Your task to perform on an android device: turn on wifi Image 0: 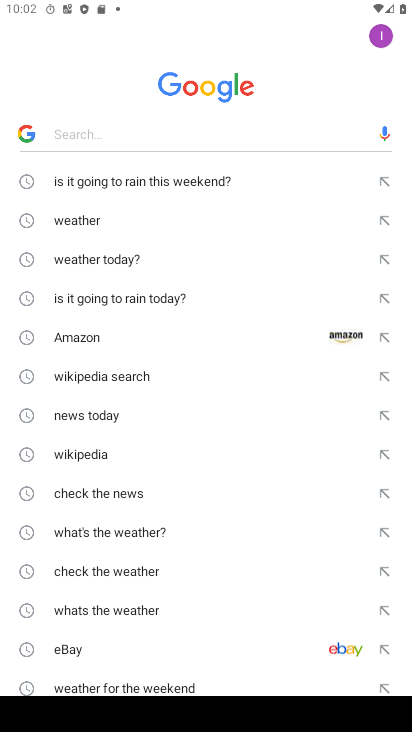
Step 0: press back button
Your task to perform on an android device: turn on wifi Image 1: 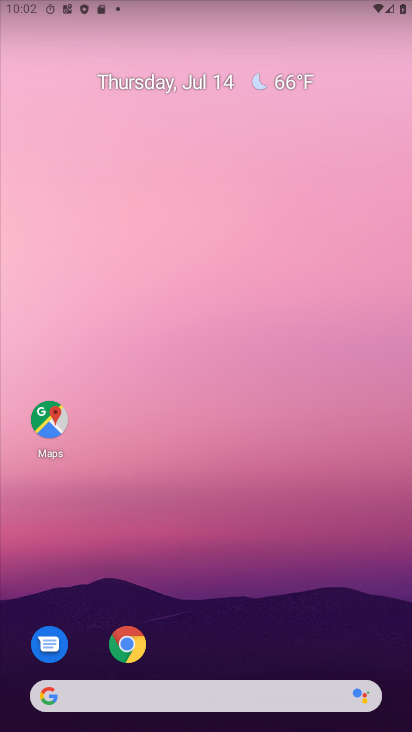
Step 1: drag from (260, 601) to (129, 137)
Your task to perform on an android device: turn on wifi Image 2: 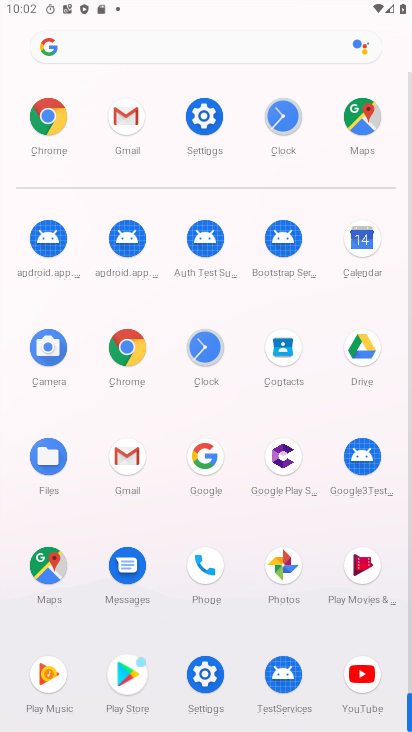
Step 2: click (201, 132)
Your task to perform on an android device: turn on wifi Image 3: 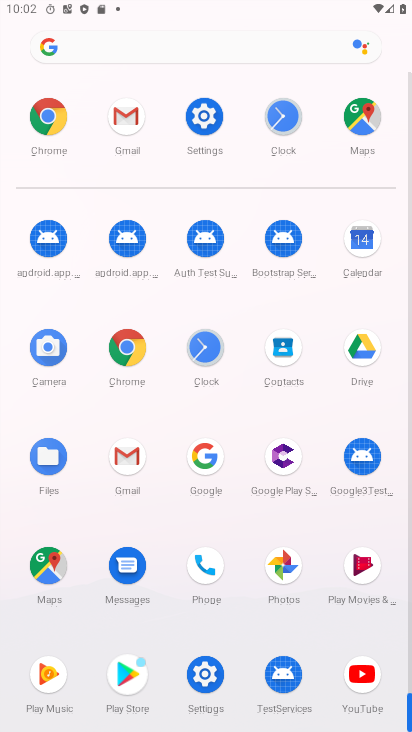
Step 3: click (200, 131)
Your task to perform on an android device: turn on wifi Image 4: 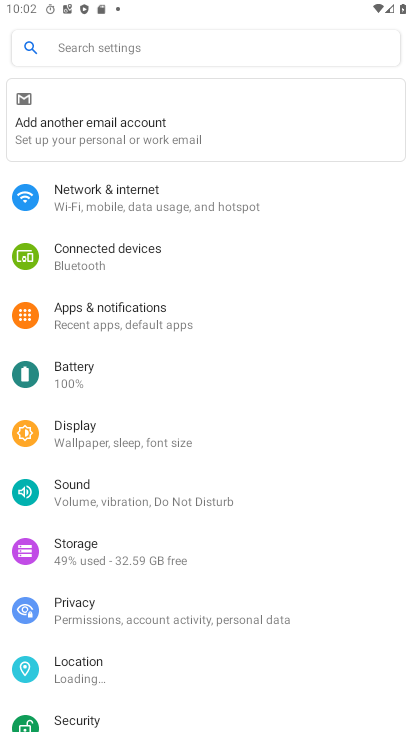
Step 4: click (200, 131)
Your task to perform on an android device: turn on wifi Image 5: 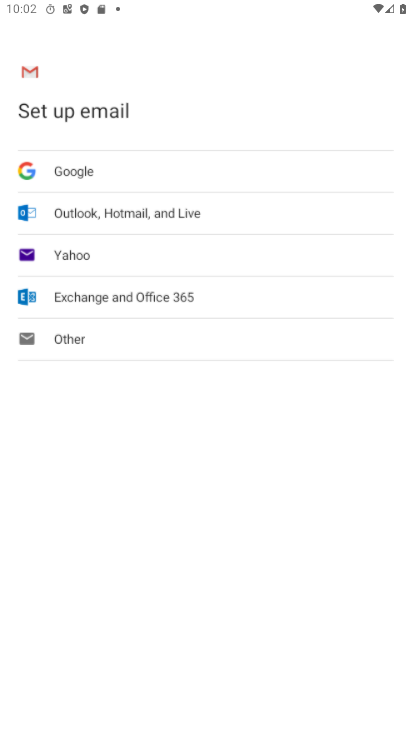
Step 5: click (194, 131)
Your task to perform on an android device: turn on wifi Image 6: 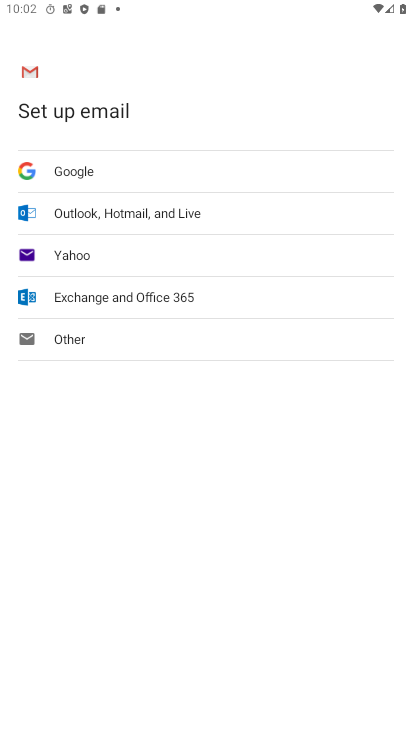
Step 6: press back button
Your task to perform on an android device: turn on wifi Image 7: 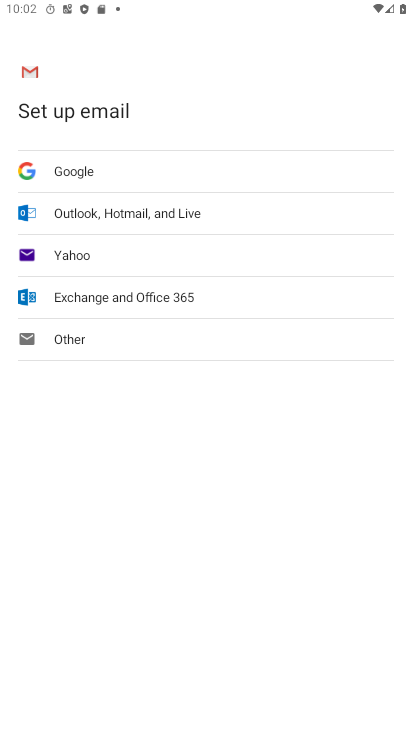
Step 7: press back button
Your task to perform on an android device: turn on wifi Image 8: 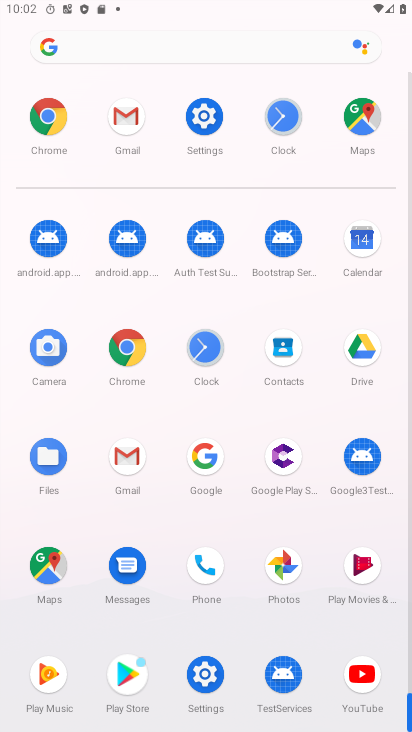
Step 8: click (201, 132)
Your task to perform on an android device: turn on wifi Image 9: 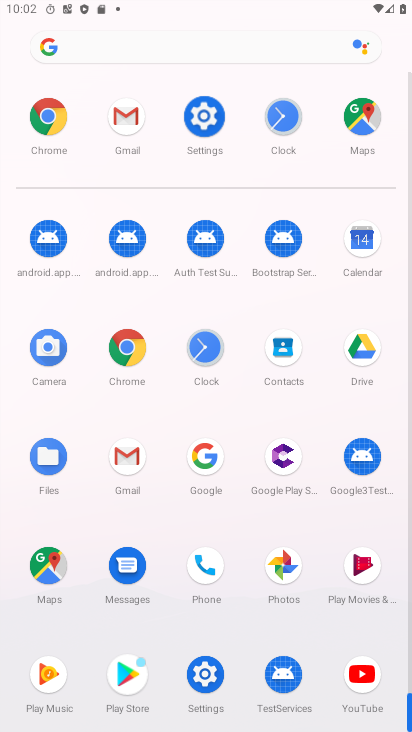
Step 9: click (203, 128)
Your task to perform on an android device: turn on wifi Image 10: 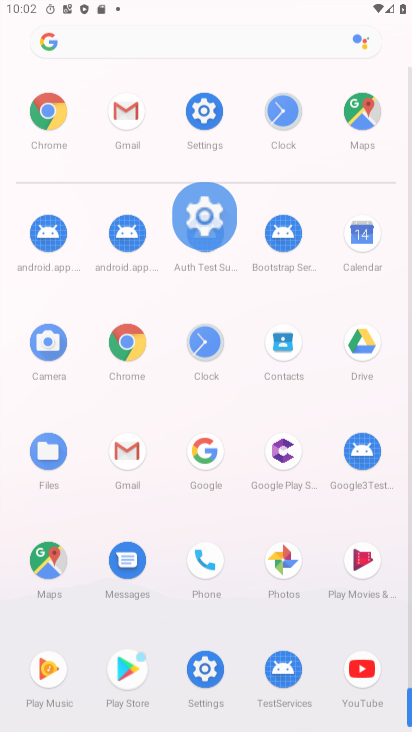
Step 10: click (203, 128)
Your task to perform on an android device: turn on wifi Image 11: 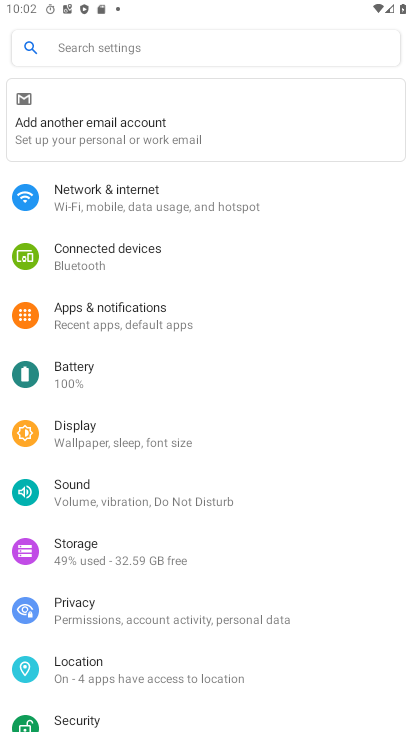
Step 11: click (119, 199)
Your task to perform on an android device: turn on wifi Image 12: 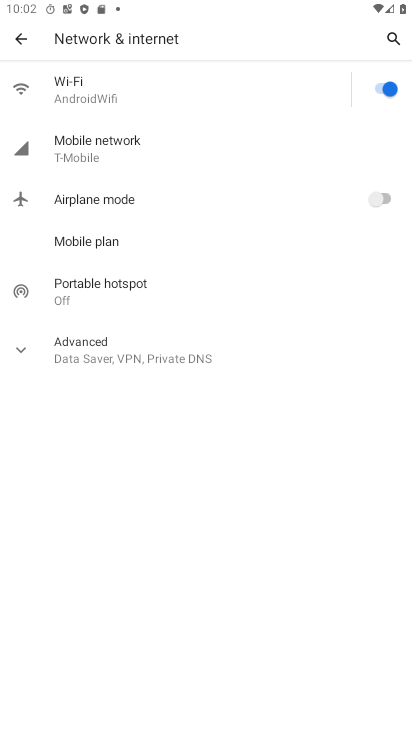
Step 12: task complete